Your task to perform on an android device: open wifi settings Image 0: 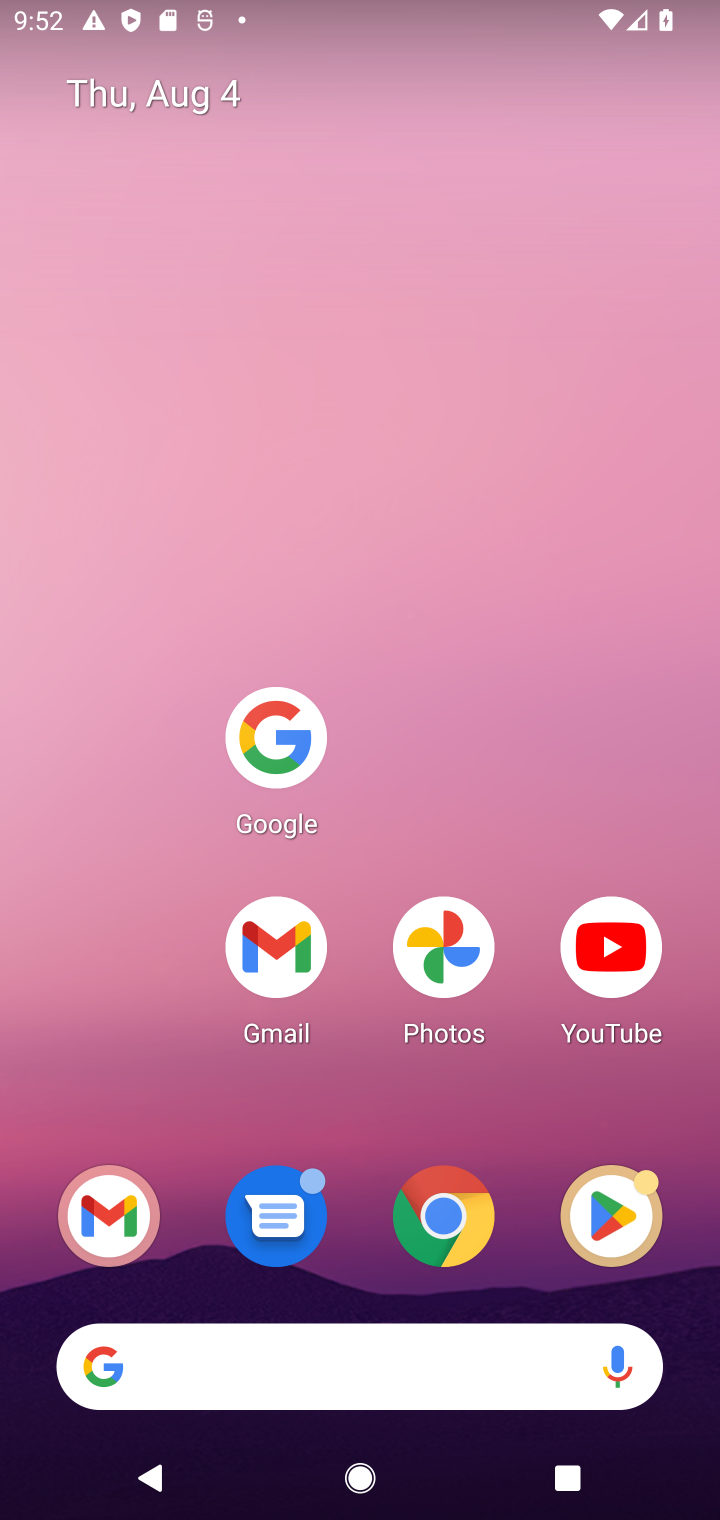
Step 0: drag from (178, 1084) to (330, 145)
Your task to perform on an android device: open wifi settings Image 1: 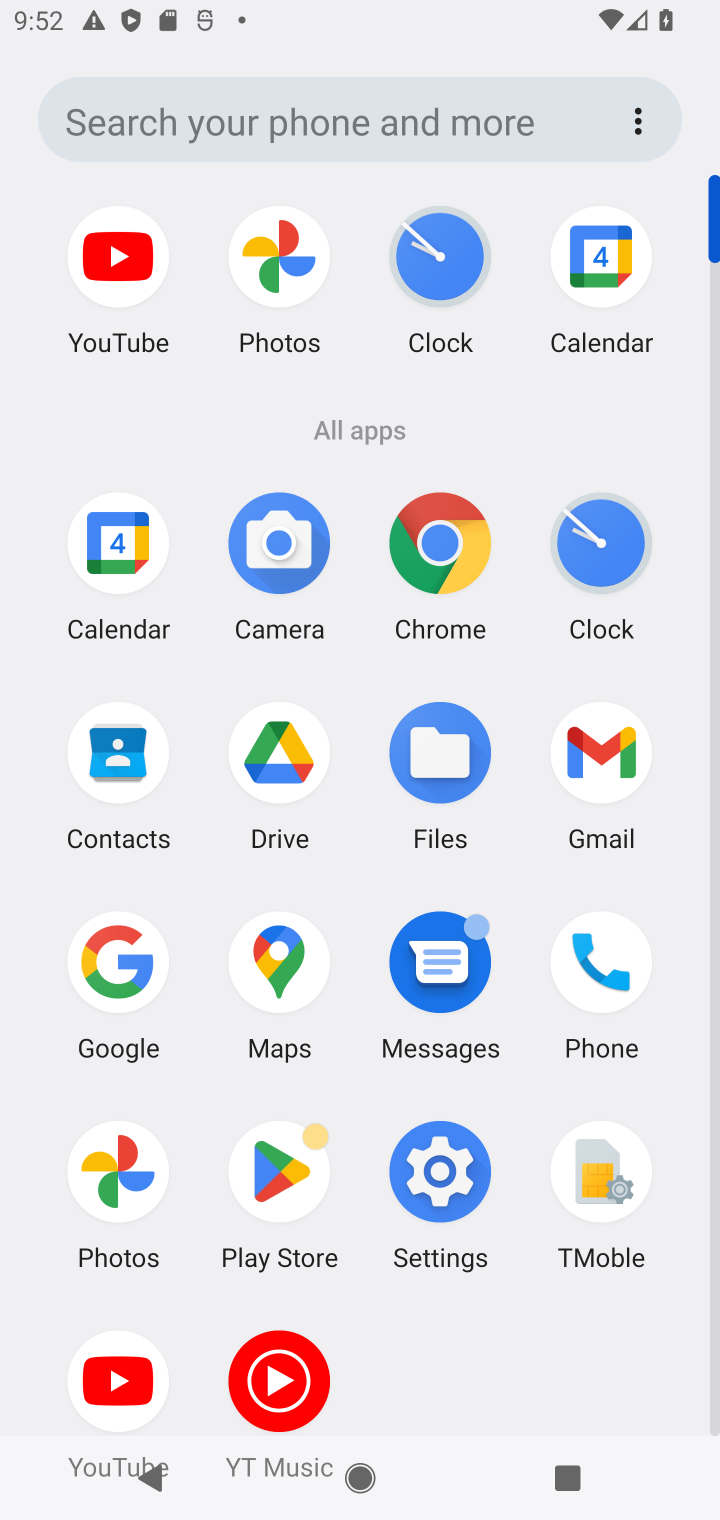
Step 1: drag from (463, 1169) to (178, 389)
Your task to perform on an android device: open wifi settings Image 2: 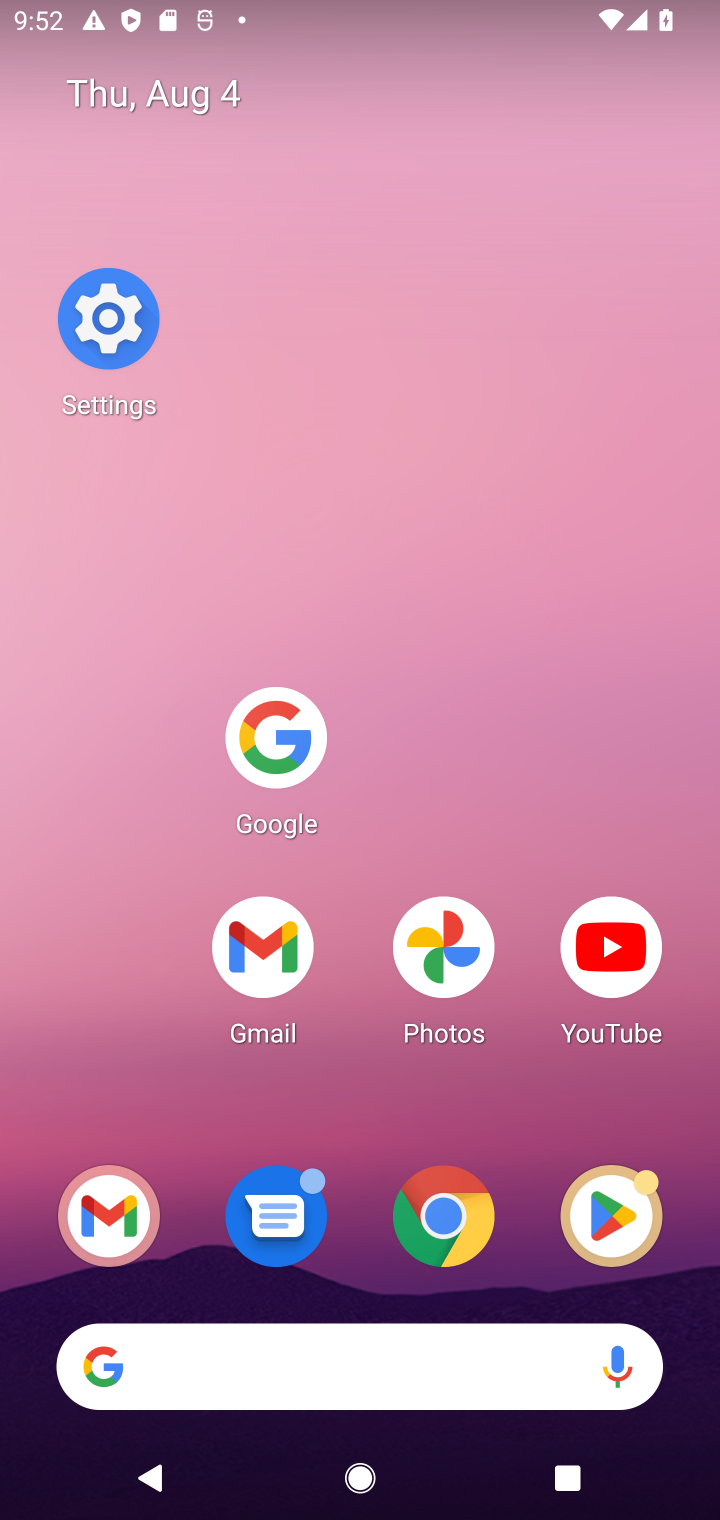
Step 2: click (109, 317)
Your task to perform on an android device: open wifi settings Image 3: 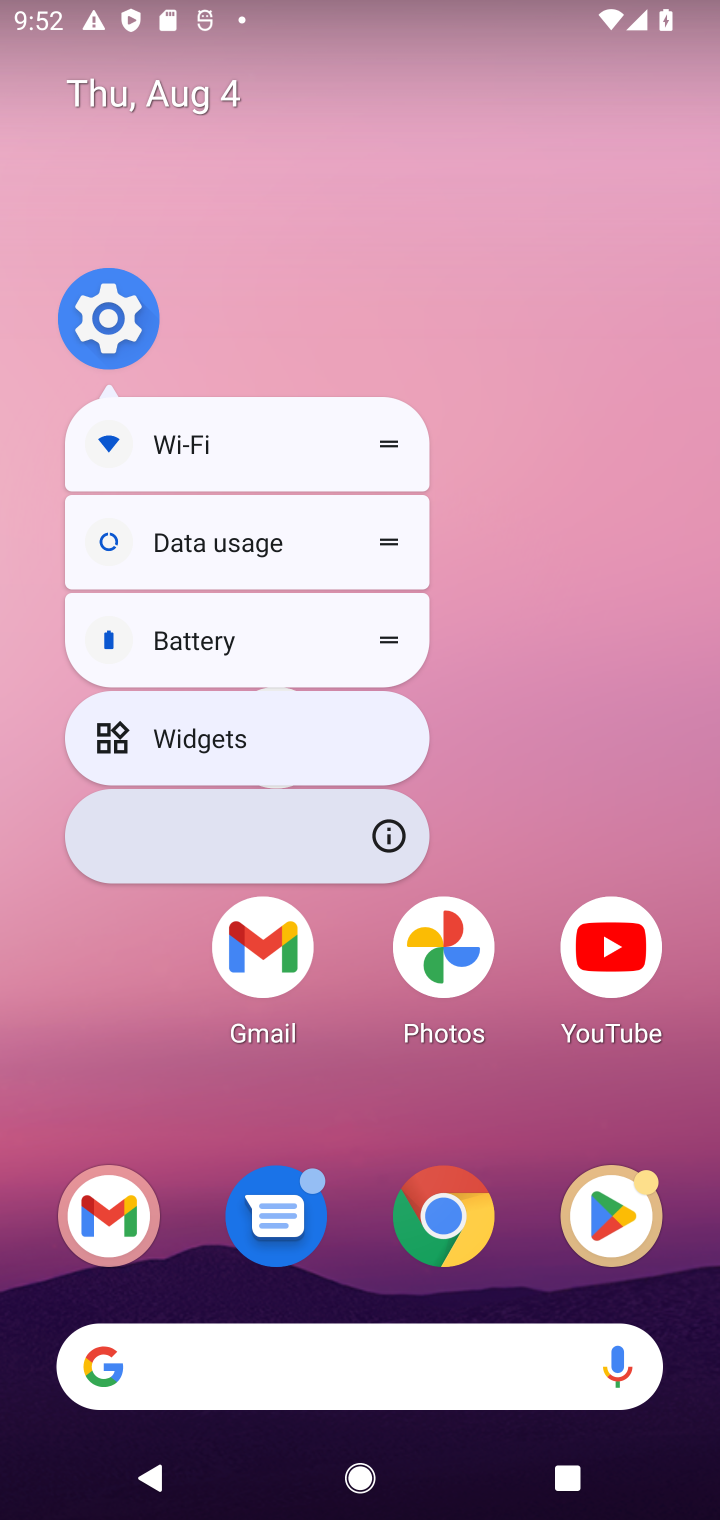
Step 3: click (139, 298)
Your task to perform on an android device: open wifi settings Image 4: 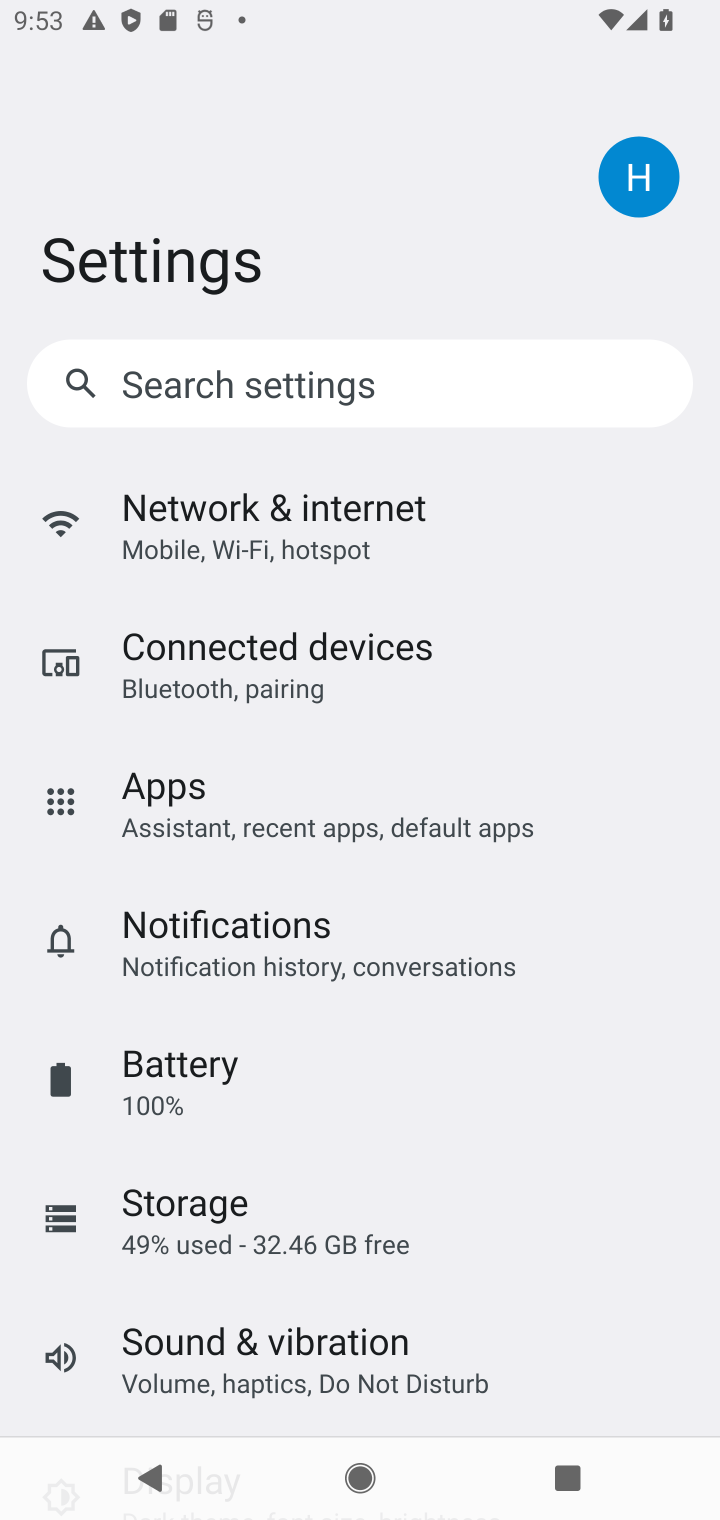
Step 4: click (419, 518)
Your task to perform on an android device: open wifi settings Image 5: 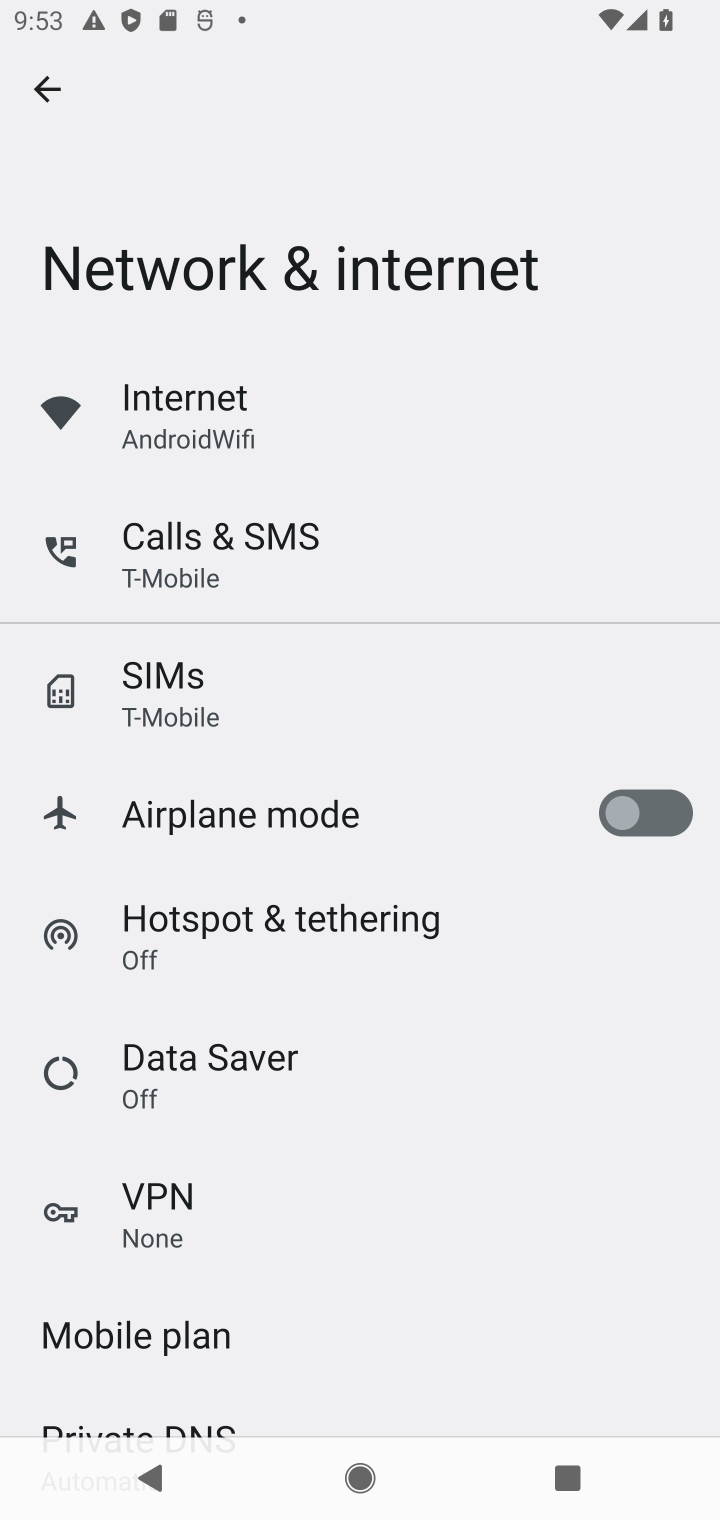
Step 5: click (459, 340)
Your task to perform on an android device: open wifi settings Image 6: 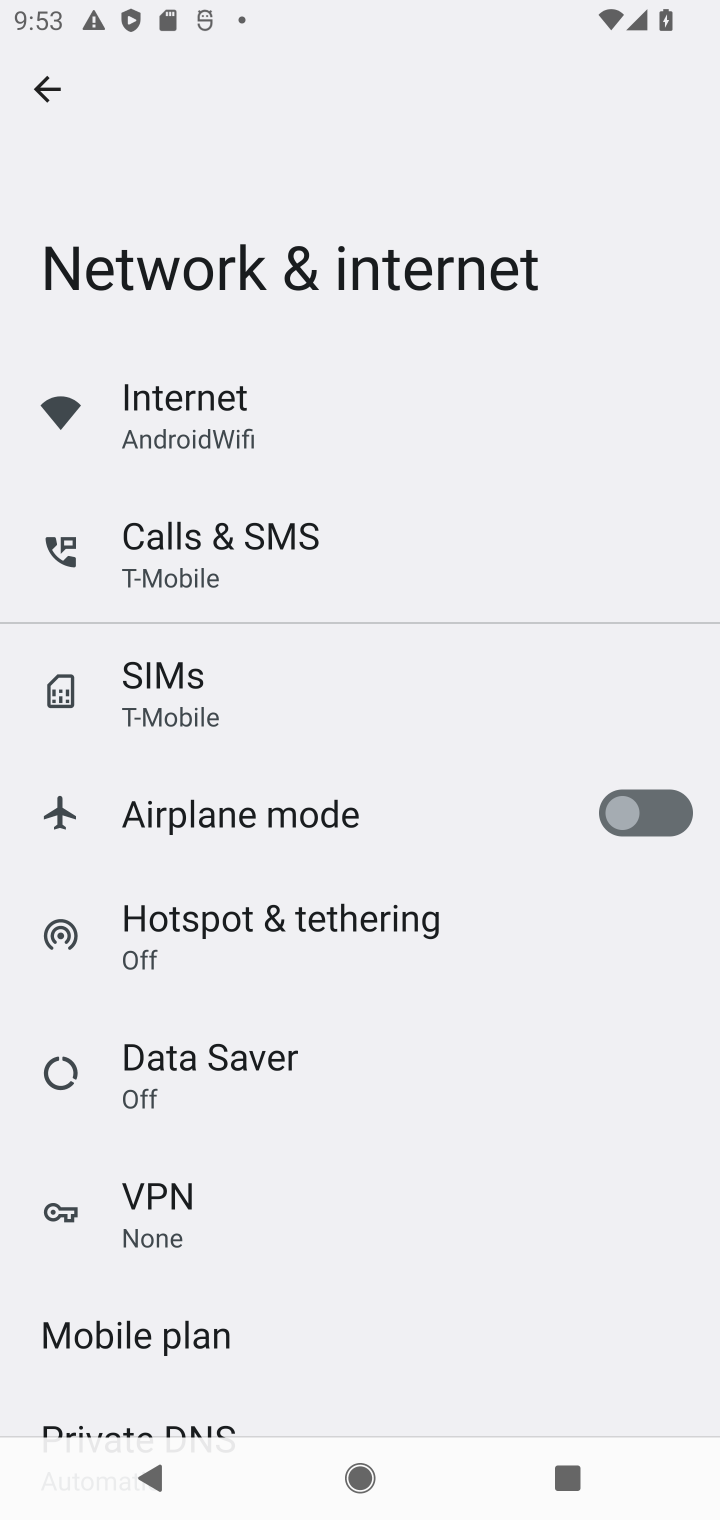
Step 6: click (361, 429)
Your task to perform on an android device: open wifi settings Image 7: 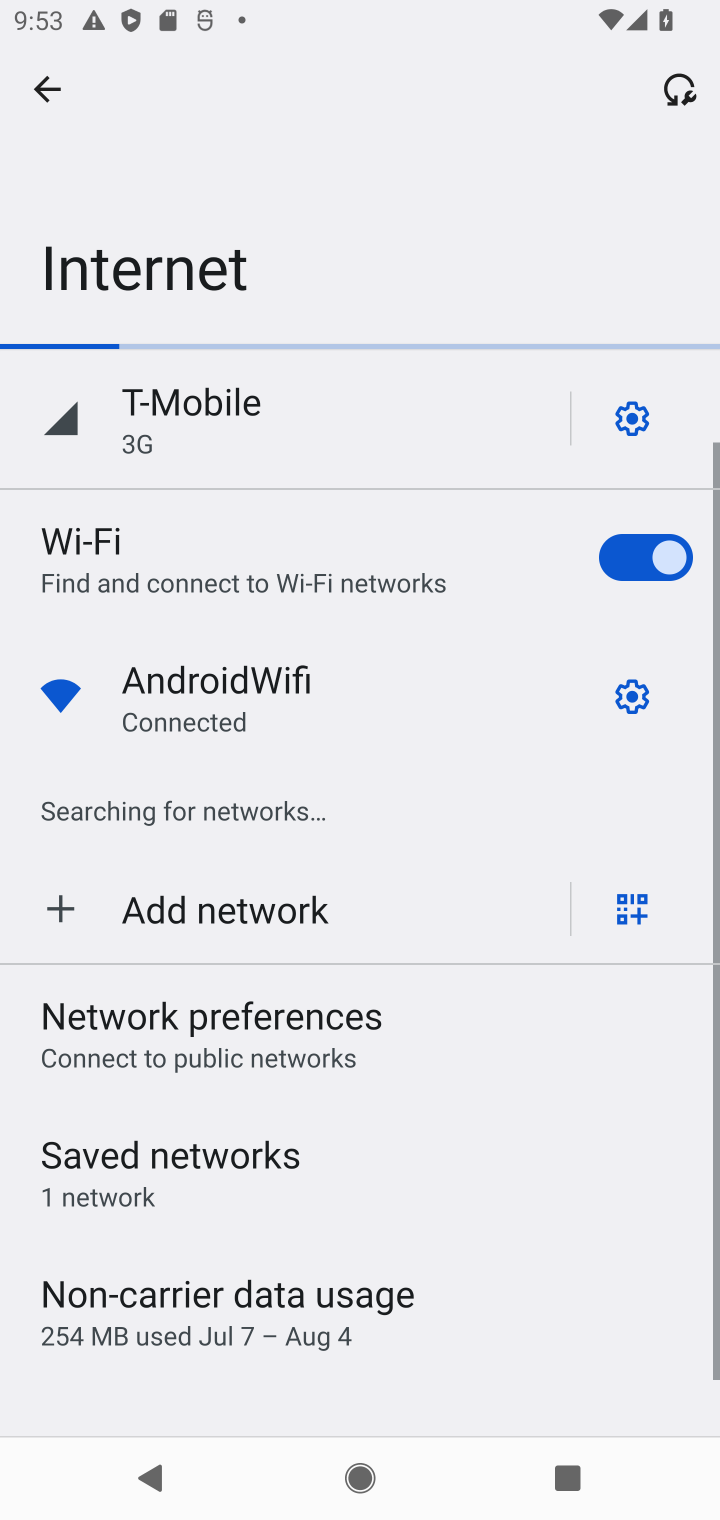
Step 7: task complete